Your task to perform on an android device: check google app version Image 0: 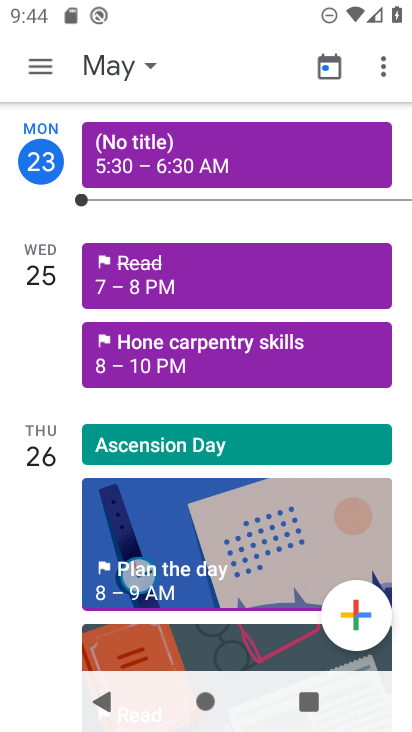
Step 0: press home button
Your task to perform on an android device: check google app version Image 1: 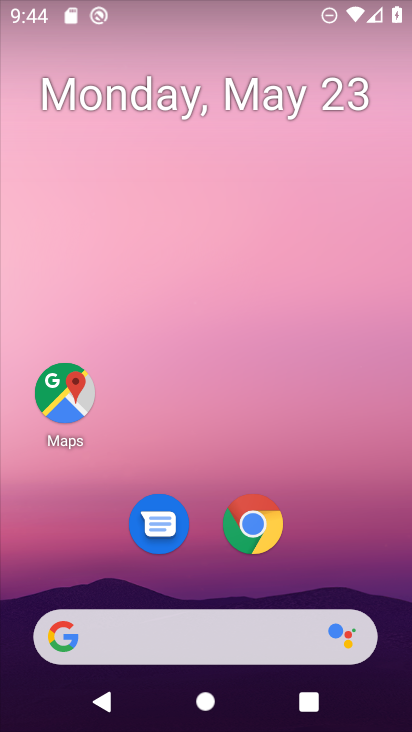
Step 1: click (72, 630)
Your task to perform on an android device: check google app version Image 2: 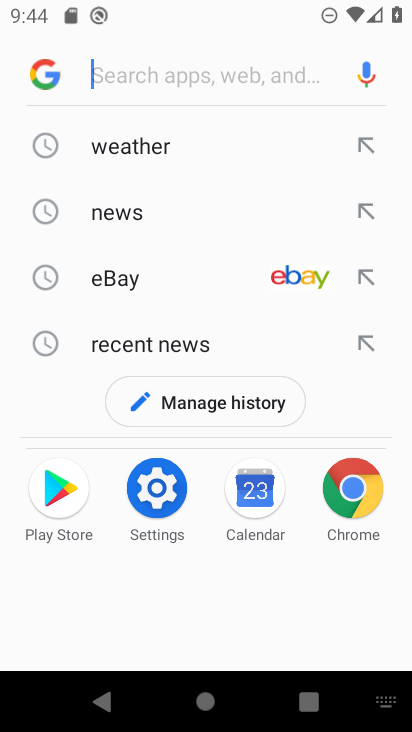
Step 2: click (47, 69)
Your task to perform on an android device: check google app version Image 3: 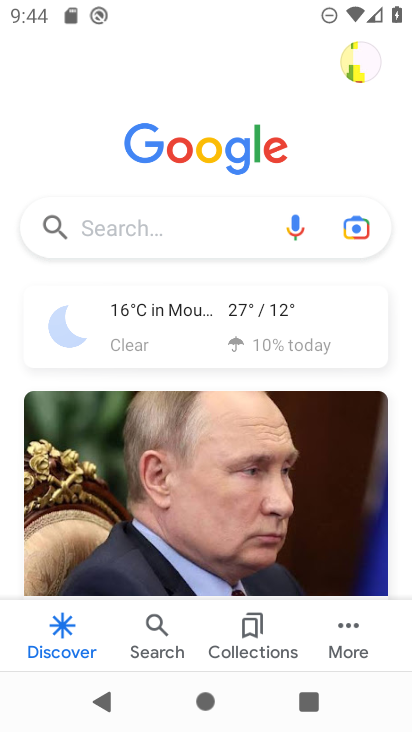
Step 3: click (355, 631)
Your task to perform on an android device: check google app version Image 4: 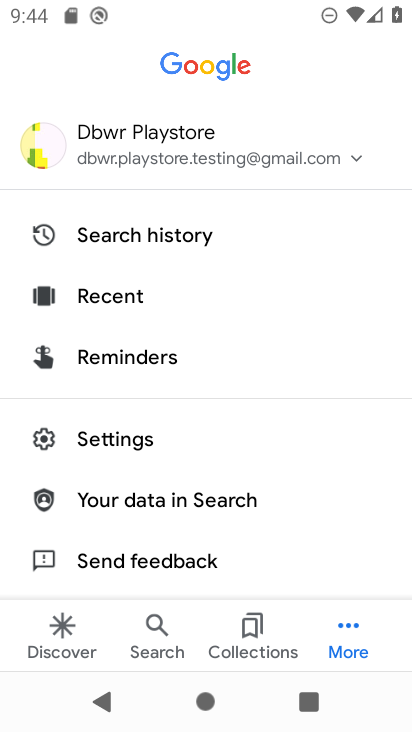
Step 4: click (191, 445)
Your task to perform on an android device: check google app version Image 5: 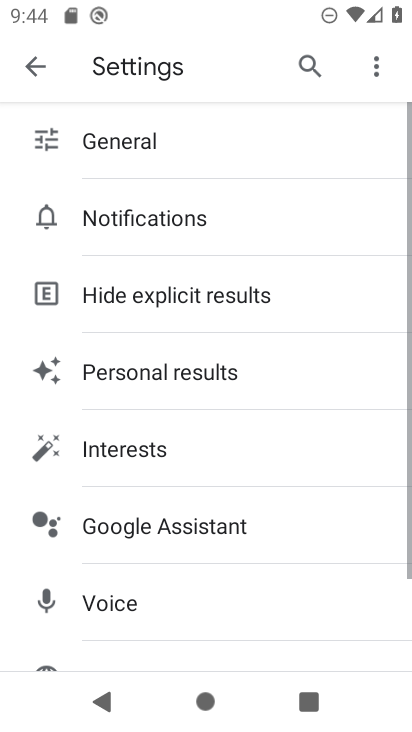
Step 5: drag from (198, 472) to (227, 131)
Your task to perform on an android device: check google app version Image 6: 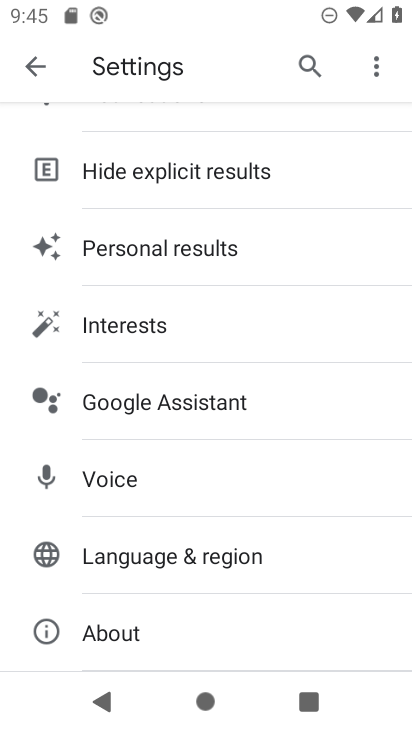
Step 6: click (121, 635)
Your task to perform on an android device: check google app version Image 7: 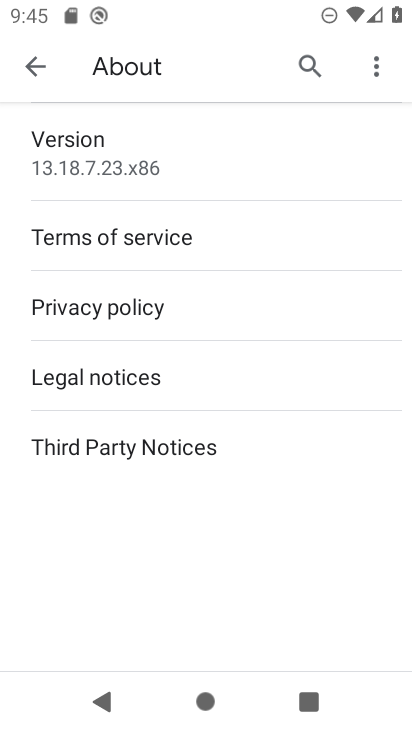
Step 7: task complete